Your task to perform on an android device: Go to eBay Image 0: 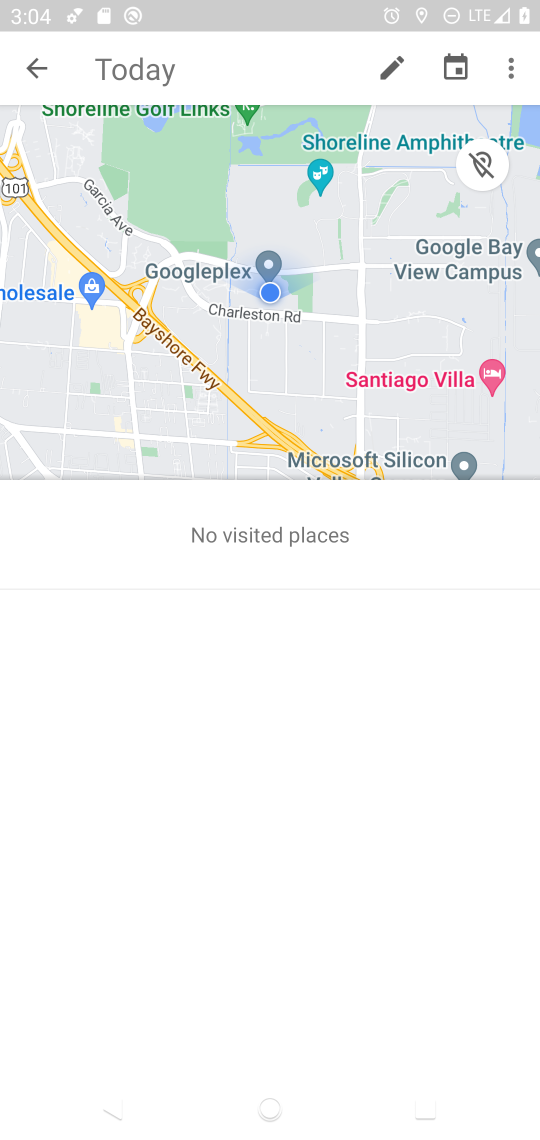
Step 0: press home button
Your task to perform on an android device: Go to eBay Image 1: 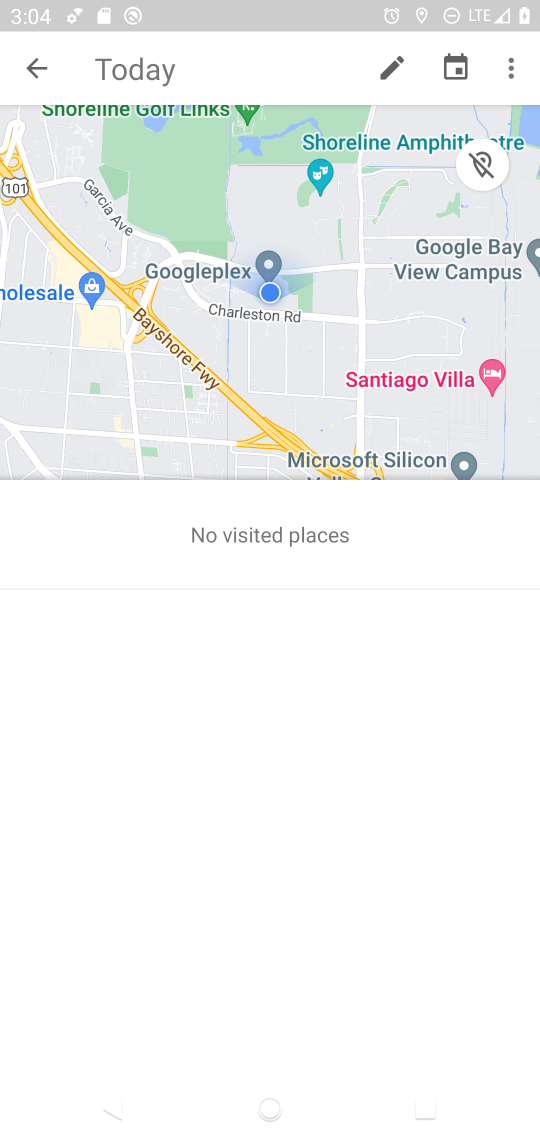
Step 1: press home button
Your task to perform on an android device: Go to eBay Image 2: 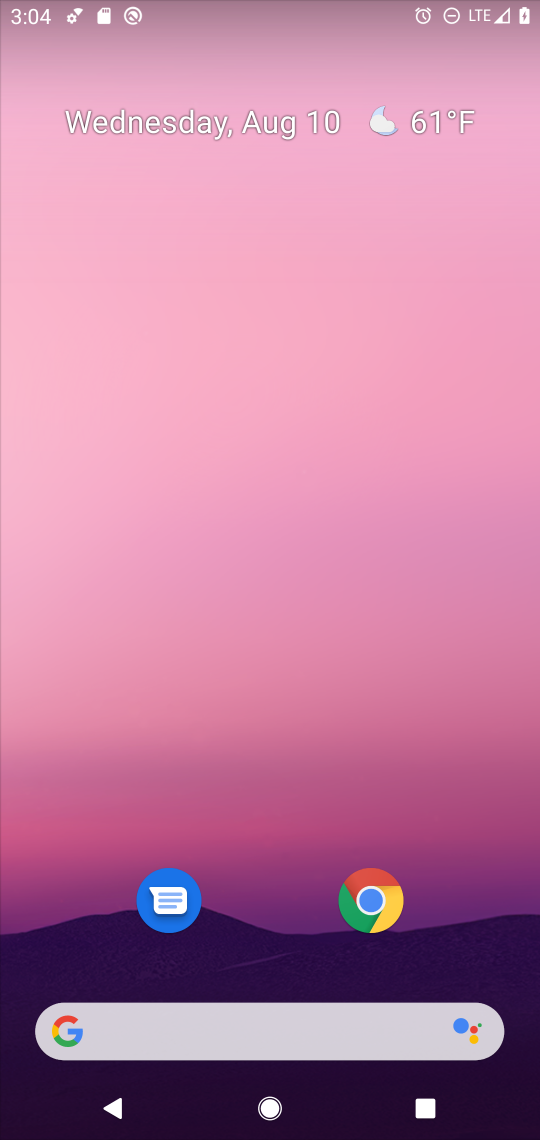
Step 2: click (286, 1028)
Your task to perform on an android device: Go to eBay Image 3: 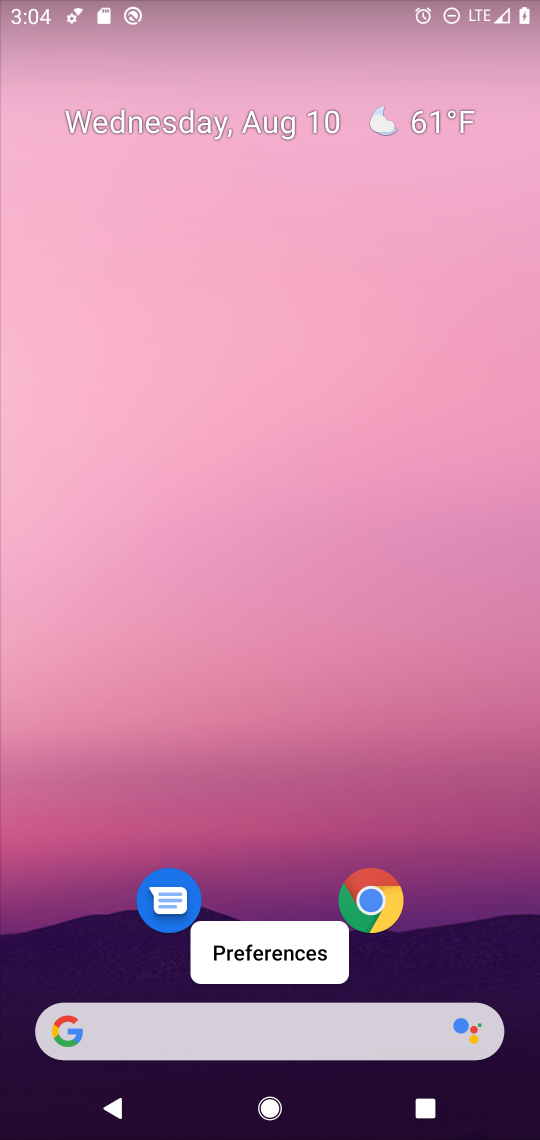
Step 3: click (355, 1043)
Your task to perform on an android device: Go to eBay Image 4: 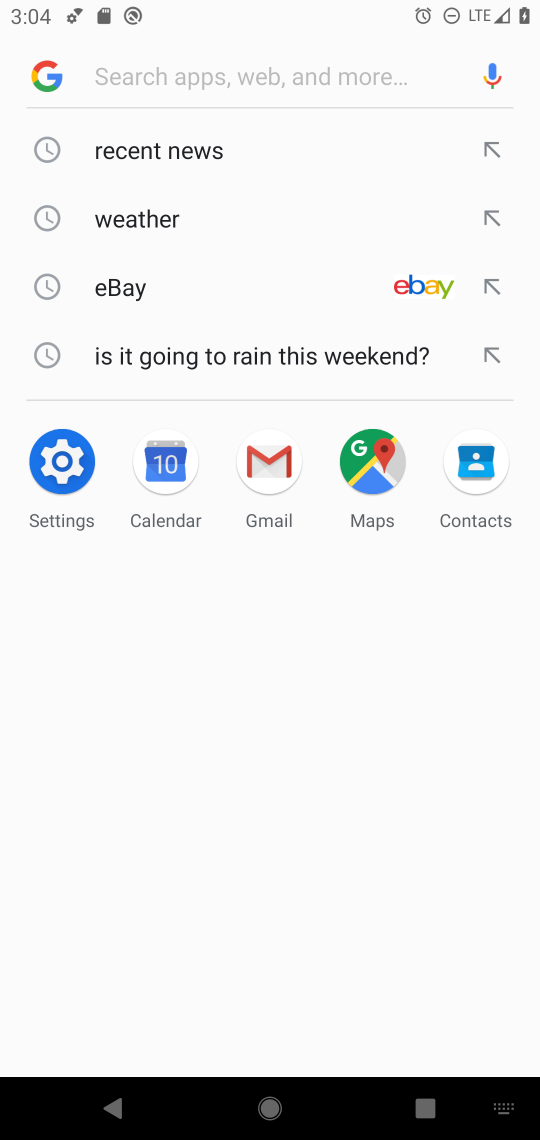
Step 4: click (251, 283)
Your task to perform on an android device: Go to eBay Image 5: 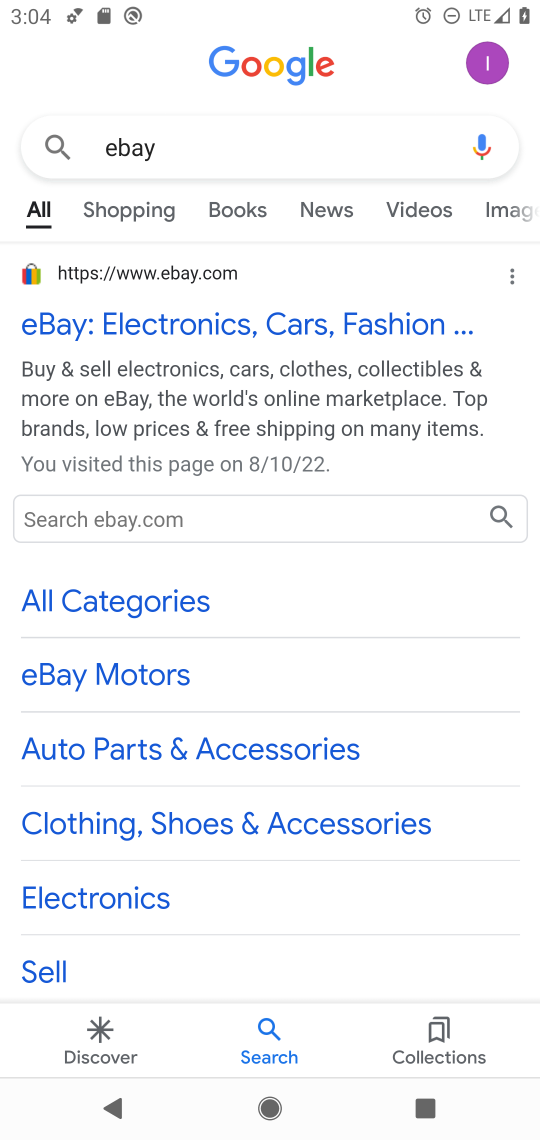
Step 5: click (249, 324)
Your task to perform on an android device: Go to eBay Image 6: 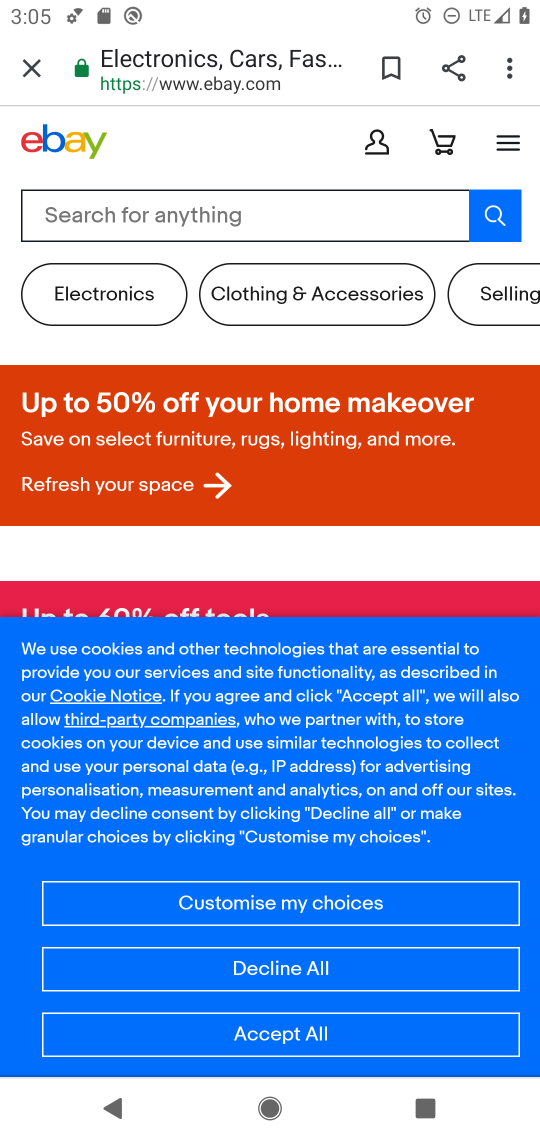
Step 6: click (396, 1028)
Your task to perform on an android device: Go to eBay Image 7: 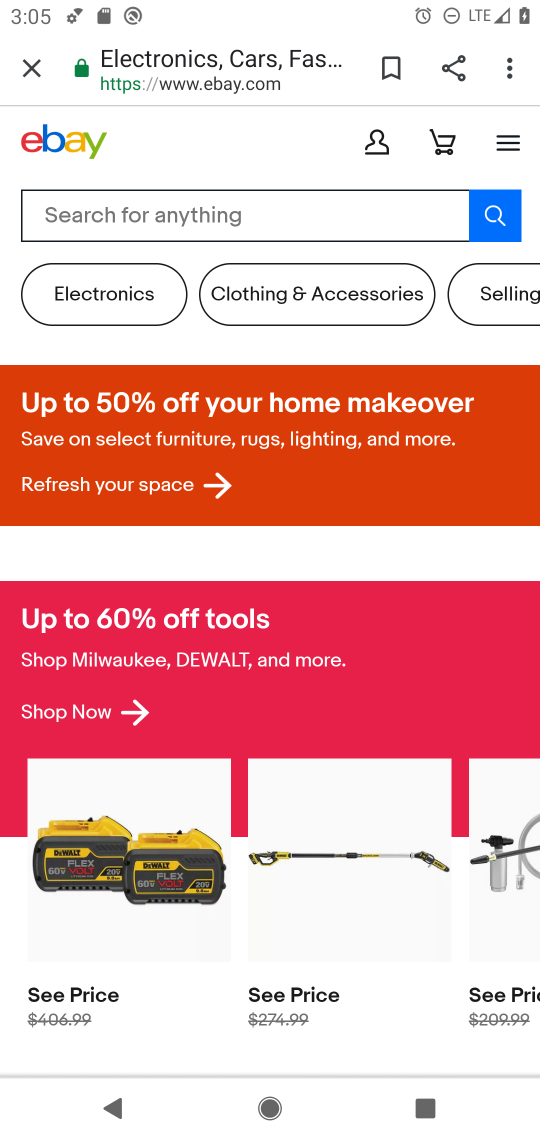
Step 7: task complete